Your task to perform on an android device: toggle sleep mode Image 0: 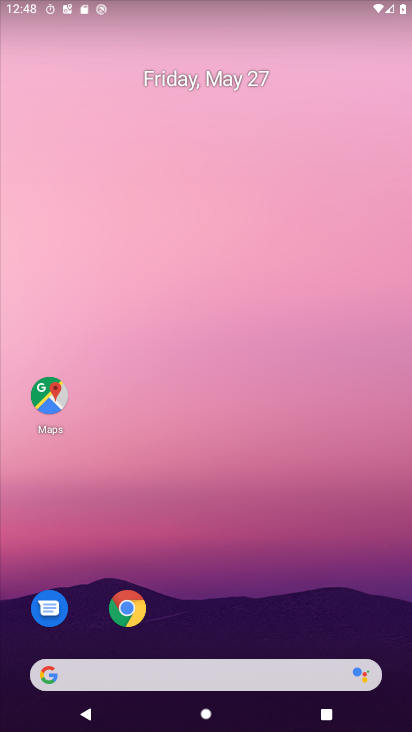
Step 0: drag from (393, 704) to (358, 259)
Your task to perform on an android device: toggle sleep mode Image 1: 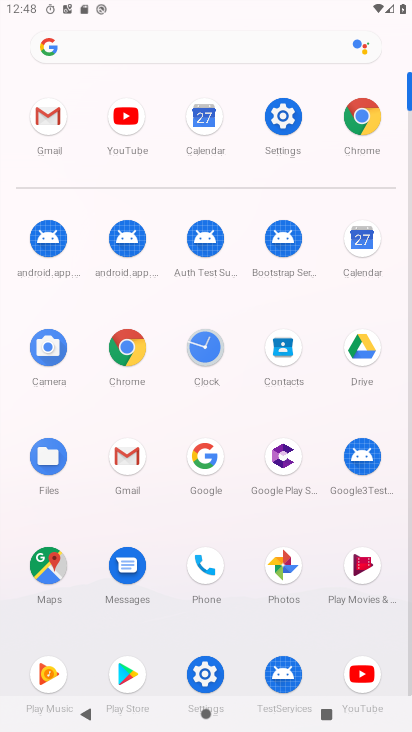
Step 1: click (276, 119)
Your task to perform on an android device: toggle sleep mode Image 2: 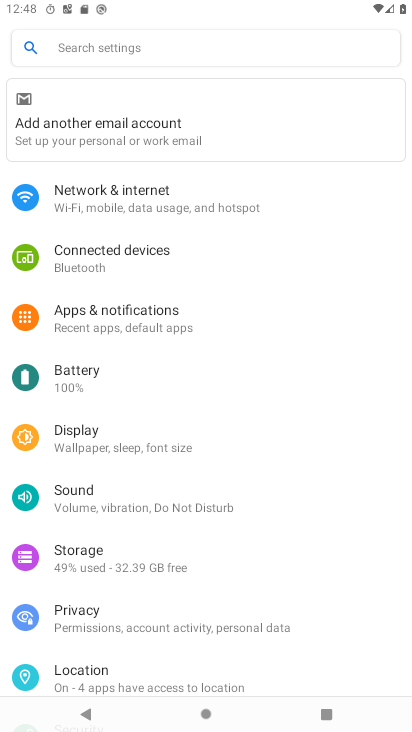
Step 2: click (87, 440)
Your task to perform on an android device: toggle sleep mode Image 3: 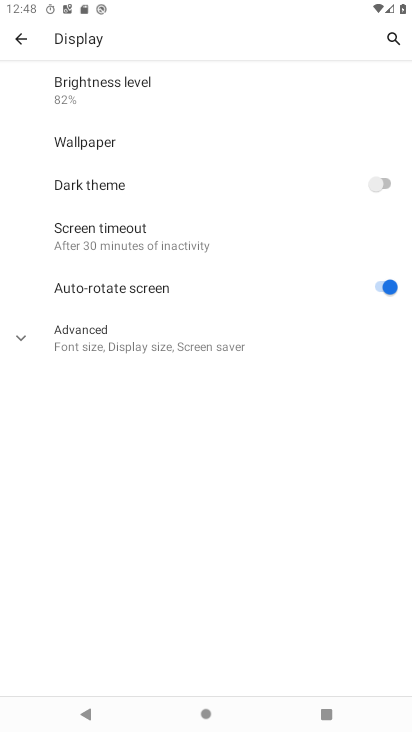
Step 3: click (102, 240)
Your task to perform on an android device: toggle sleep mode Image 4: 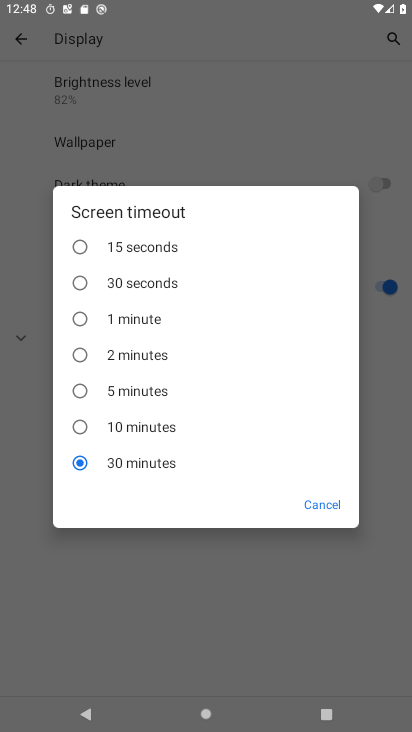
Step 4: click (80, 425)
Your task to perform on an android device: toggle sleep mode Image 5: 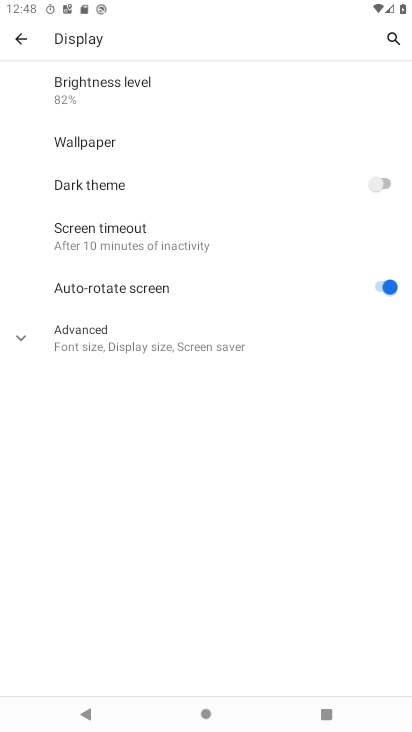
Step 5: task complete